Your task to perform on an android device: Show the shopping cart on ebay. Search for razer deathadder on ebay, select the first entry, add it to the cart, then select checkout. Image 0: 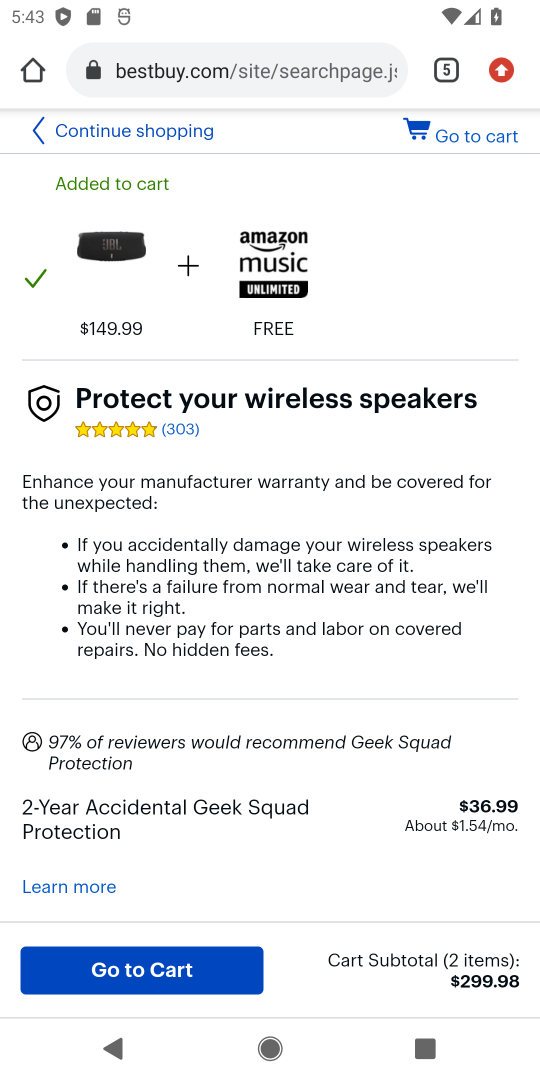
Step 0: click (447, 76)
Your task to perform on an android device: Show the shopping cart on ebay. Search for razer deathadder on ebay, select the first entry, add it to the cart, then select checkout. Image 1: 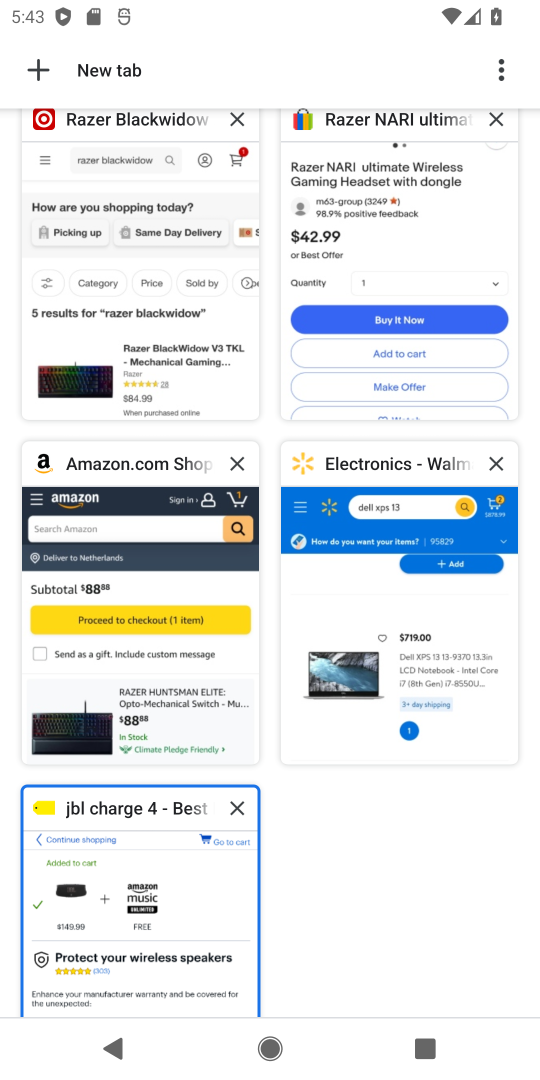
Step 1: click (382, 177)
Your task to perform on an android device: Show the shopping cart on ebay. Search for razer deathadder on ebay, select the first entry, add it to the cart, then select checkout. Image 2: 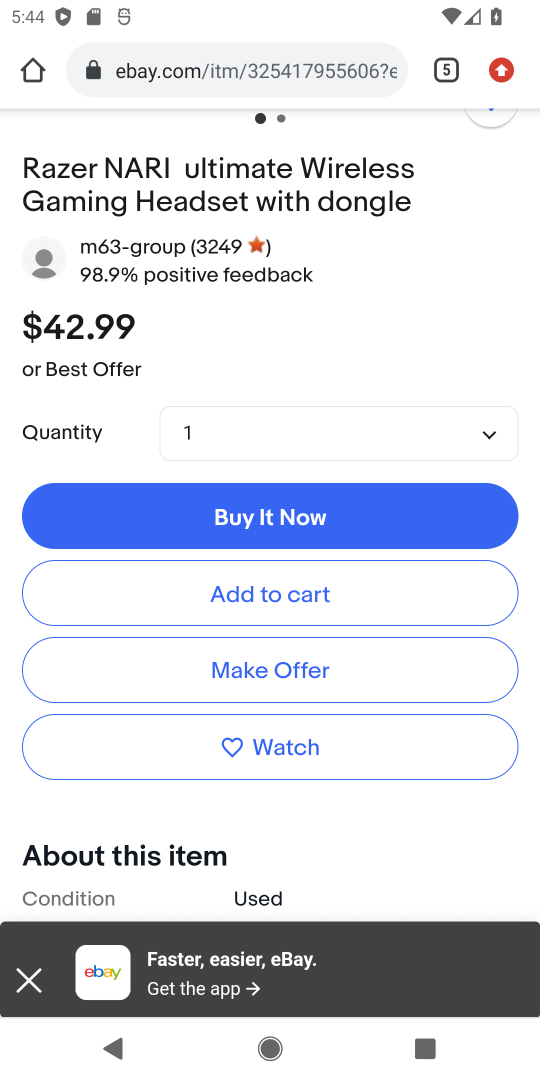
Step 2: drag from (415, 187) to (448, 800)
Your task to perform on an android device: Show the shopping cart on ebay. Search for razer deathadder on ebay, select the first entry, add it to the cart, then select checkout. Image 3: 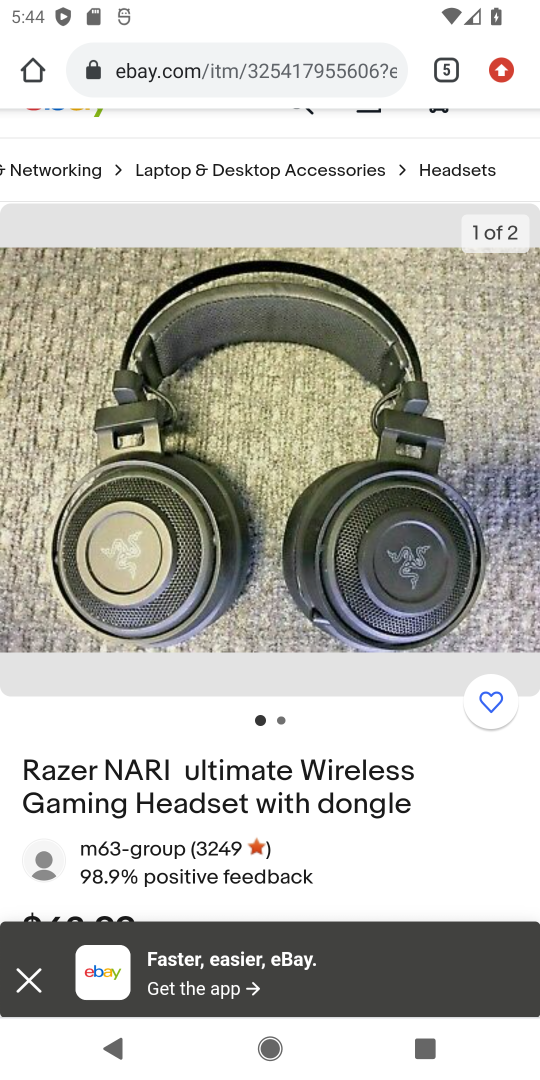
Step 3: drag from (420, 176) to (407, 1011)
Your task to perform on an android device: Show the shopping cart on ebay. Search for razer deathadder on ebay, select the first entry, add it to the cart, then select checkout. Image 4: 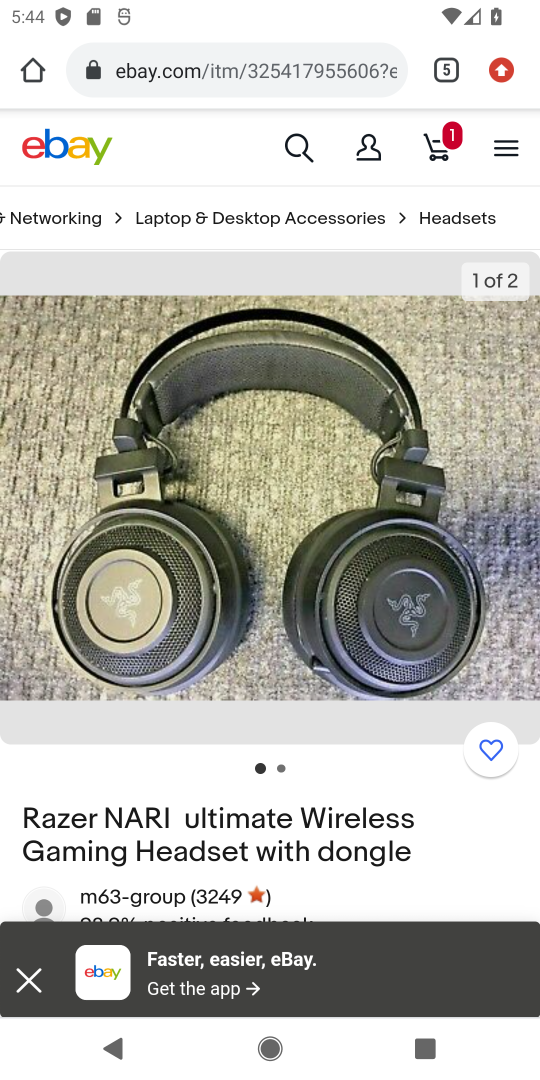
Step 4: click (294, 141)
Your task to perform on an android device: Show the shopping cart on ebay. Search for razer deathadder on ebay, select the first entry, add it to the cart, then select checkout. Image 5: 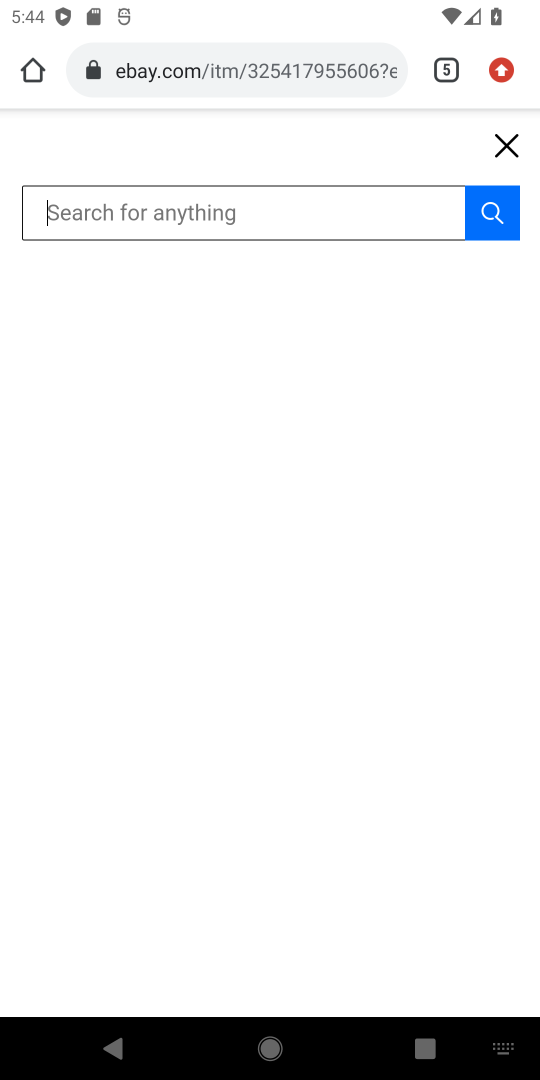
Step 5: type "razer deathadder"
Your task to perform on an android device: Show the shopping cart on ebay. Search for razer deathadder on ebay, select the first entry, add it to the cart, then select checkout. Image 6: 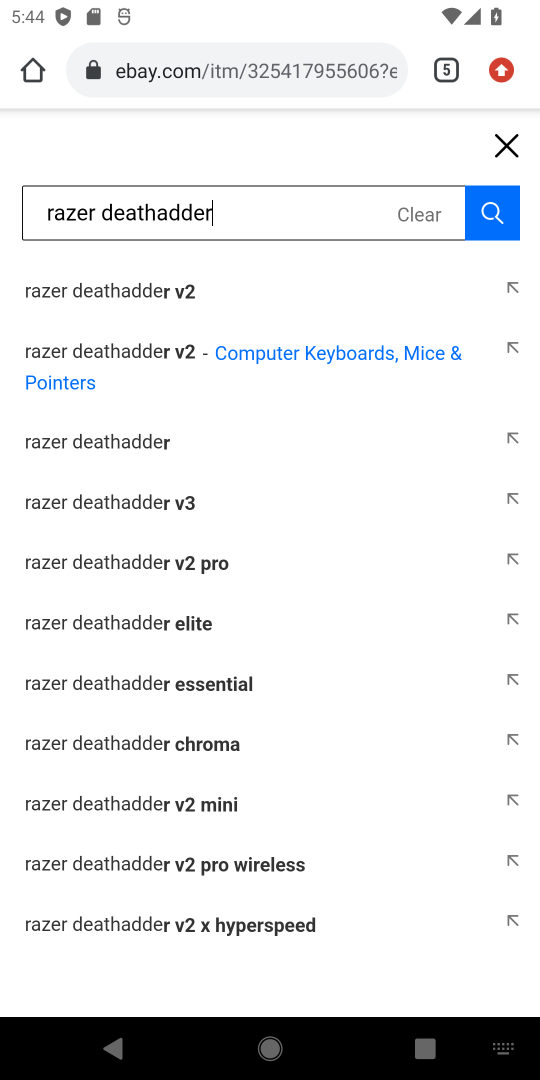
Step 6: click (119, 349)
Your task to perform on an android device: Show the shopping cart on ebay. Search for razer deathadder on ebay, select the first entry, add it to the cart, then select checkout. Image 7: 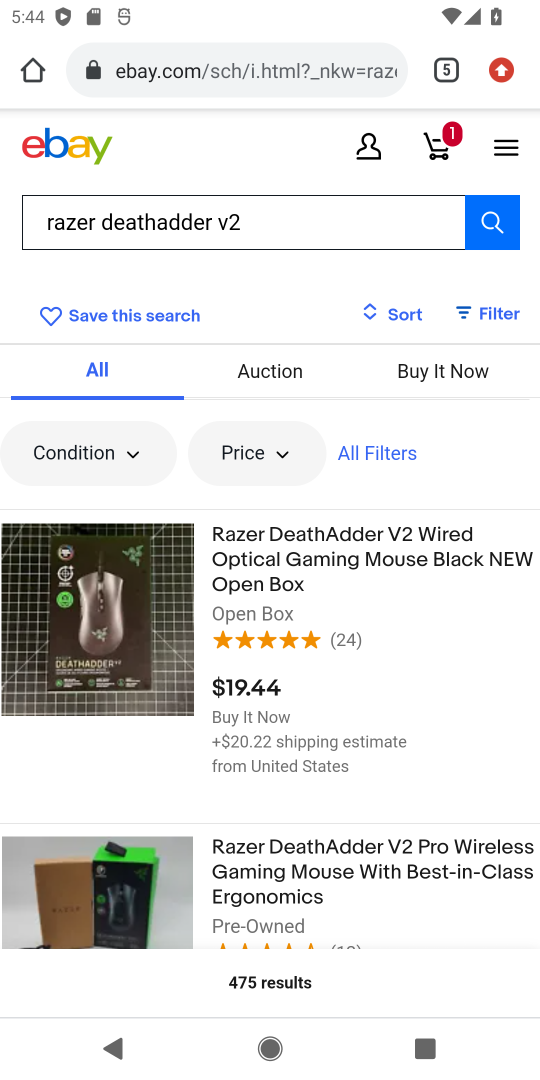
Step 7: click (269, 563)
Your task to perform on an android device: Show the shopping cart on ebay. Search for razer deathadder on ebay, select the first entry, add it to the cart, then select checkout. Image 8: 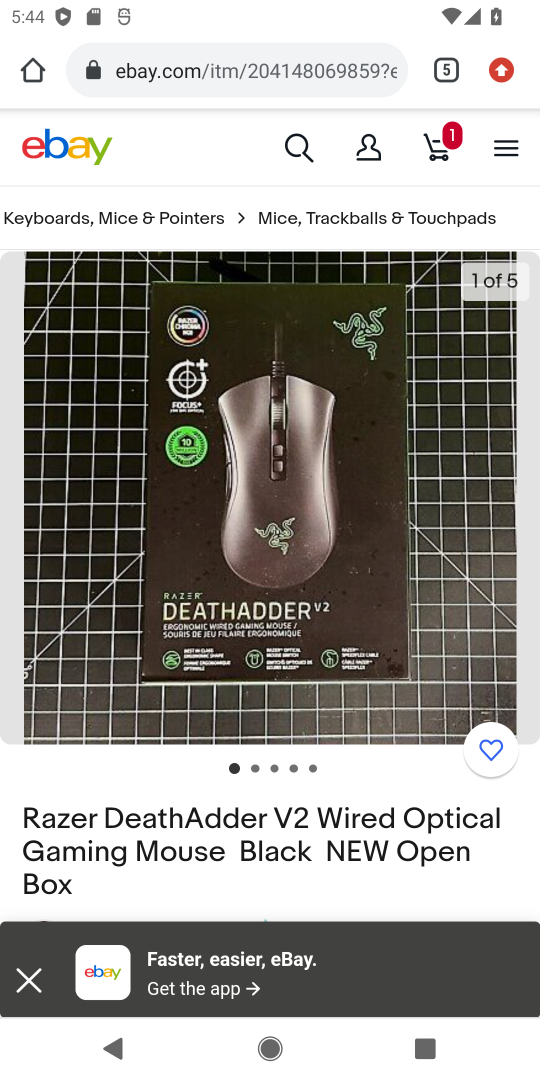
Step 8: drag from (364, 854) to (437, 260)
Your task to perform on an android device: Show the shopping cart on ebay. Search for razer deathadder on ebay, select the first entry, add it to the cart, then select checkout. Image 9: 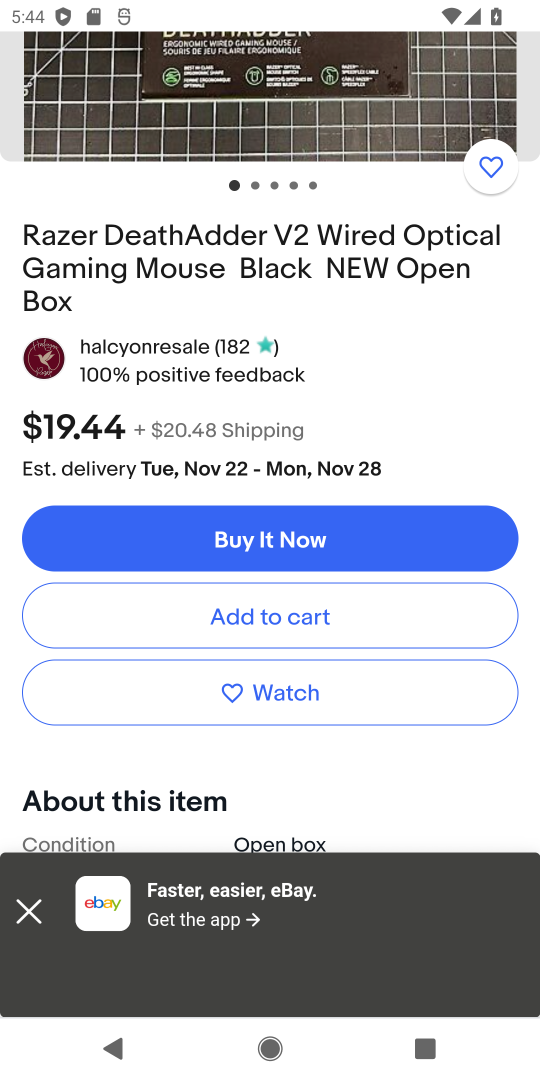
Step 9: click (295, 622)
Your task to perform on an android device: Show the shopping cart on ebay. Search for razer deathadder on ebay, select the first entry, add it to the cart, then select checkout. Image 10: 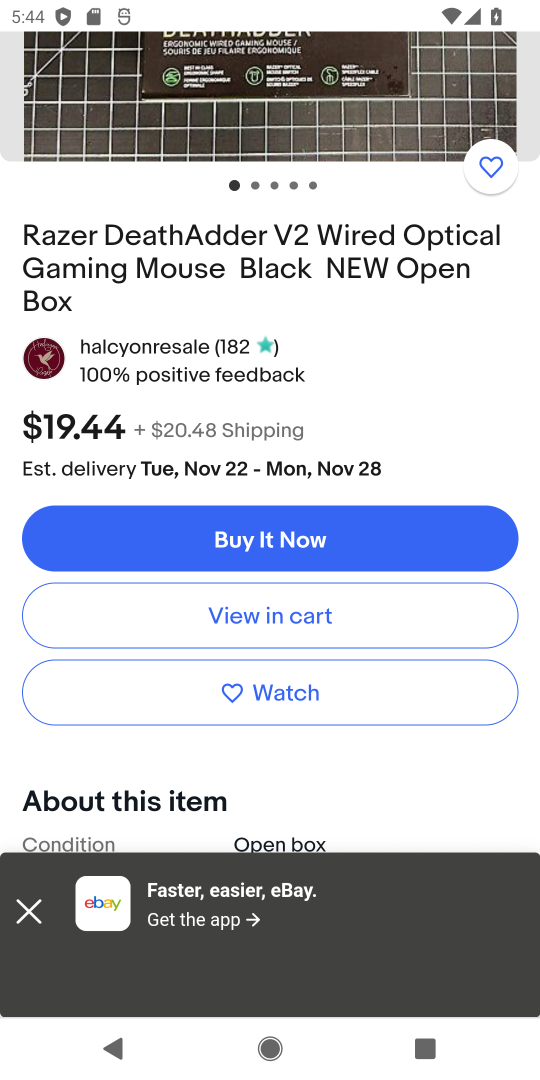
Step 10: task complete